Your task to perform on an android device: turn off airplane mode Image 0: 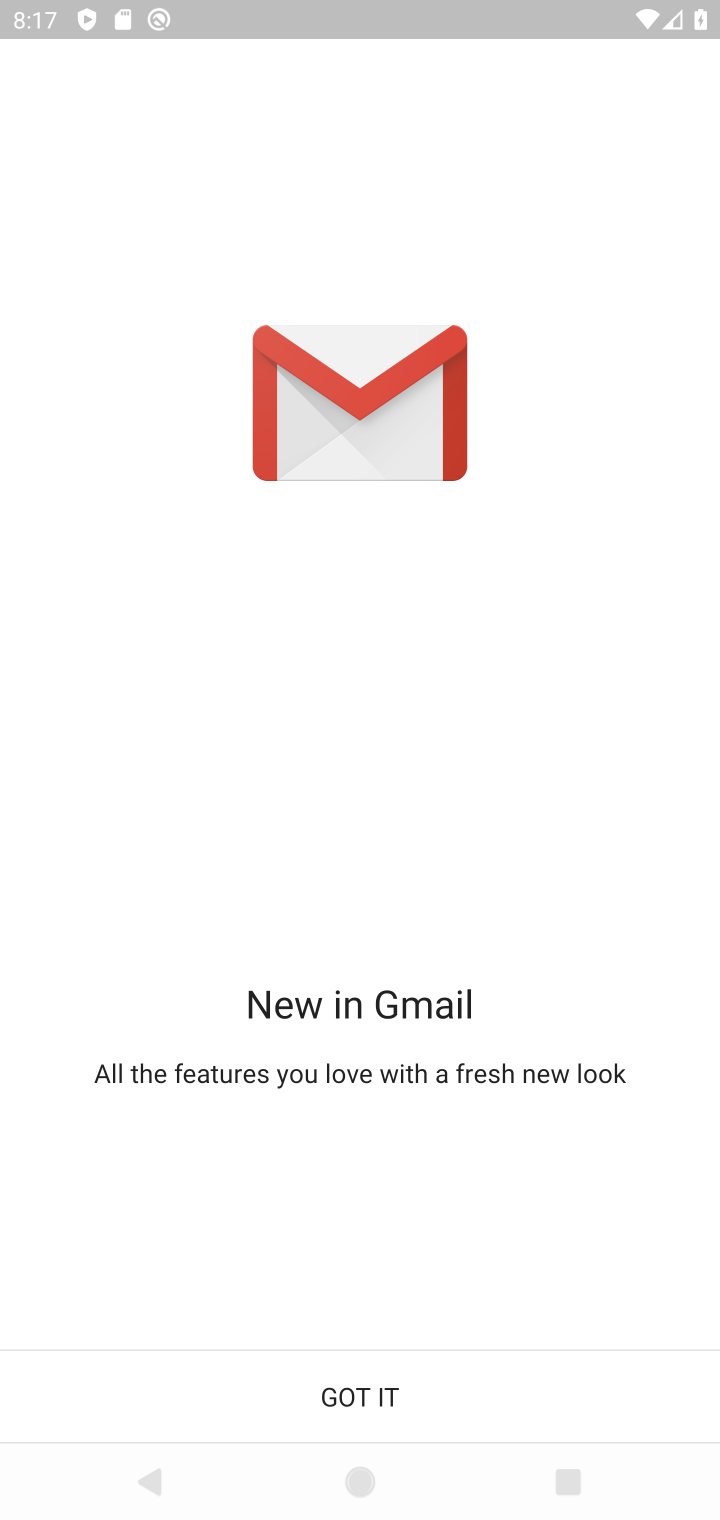
Step 0: press home button
Your task to perform on an android device: turn off airplane mode Image 1: 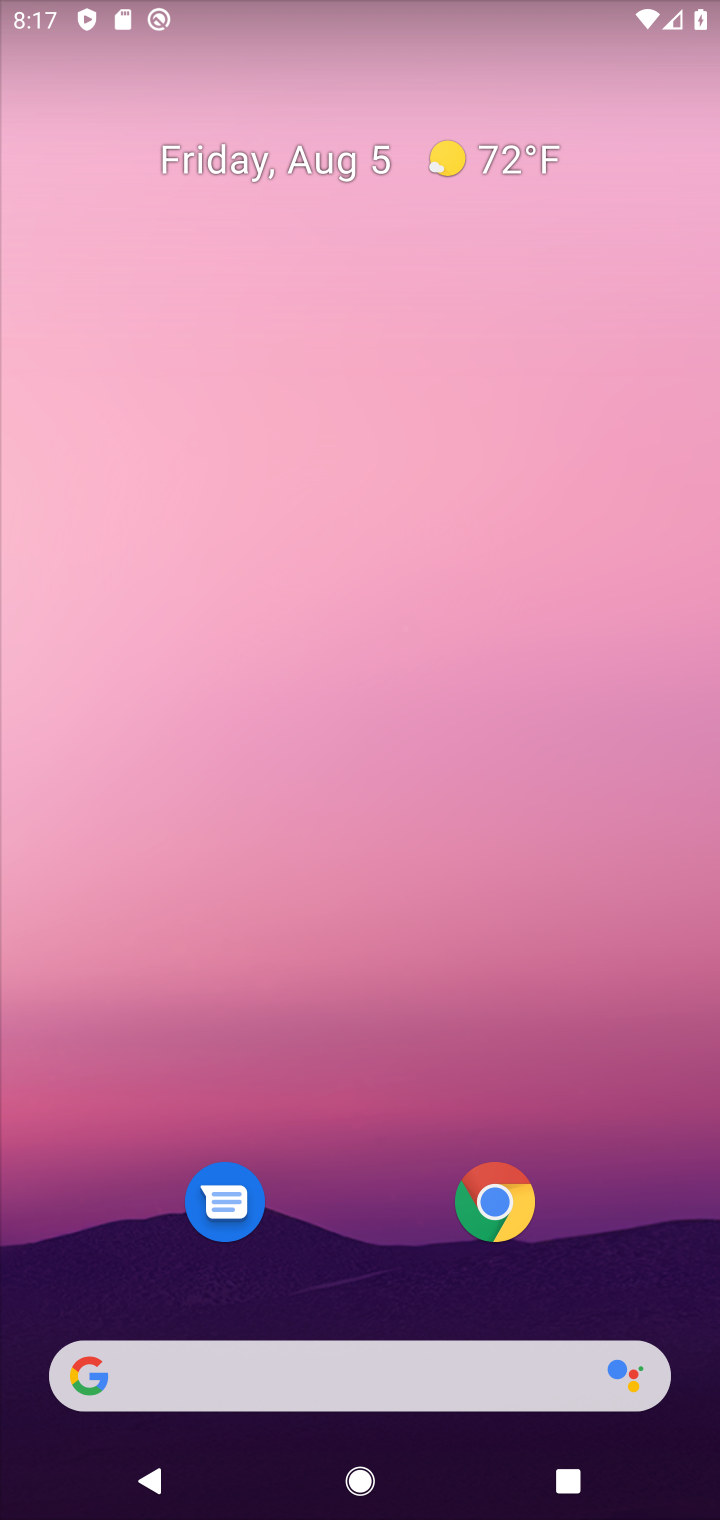
Step 1: click (427, 339)
Your task to perform on an android device: turn off airplane mode Image 2: 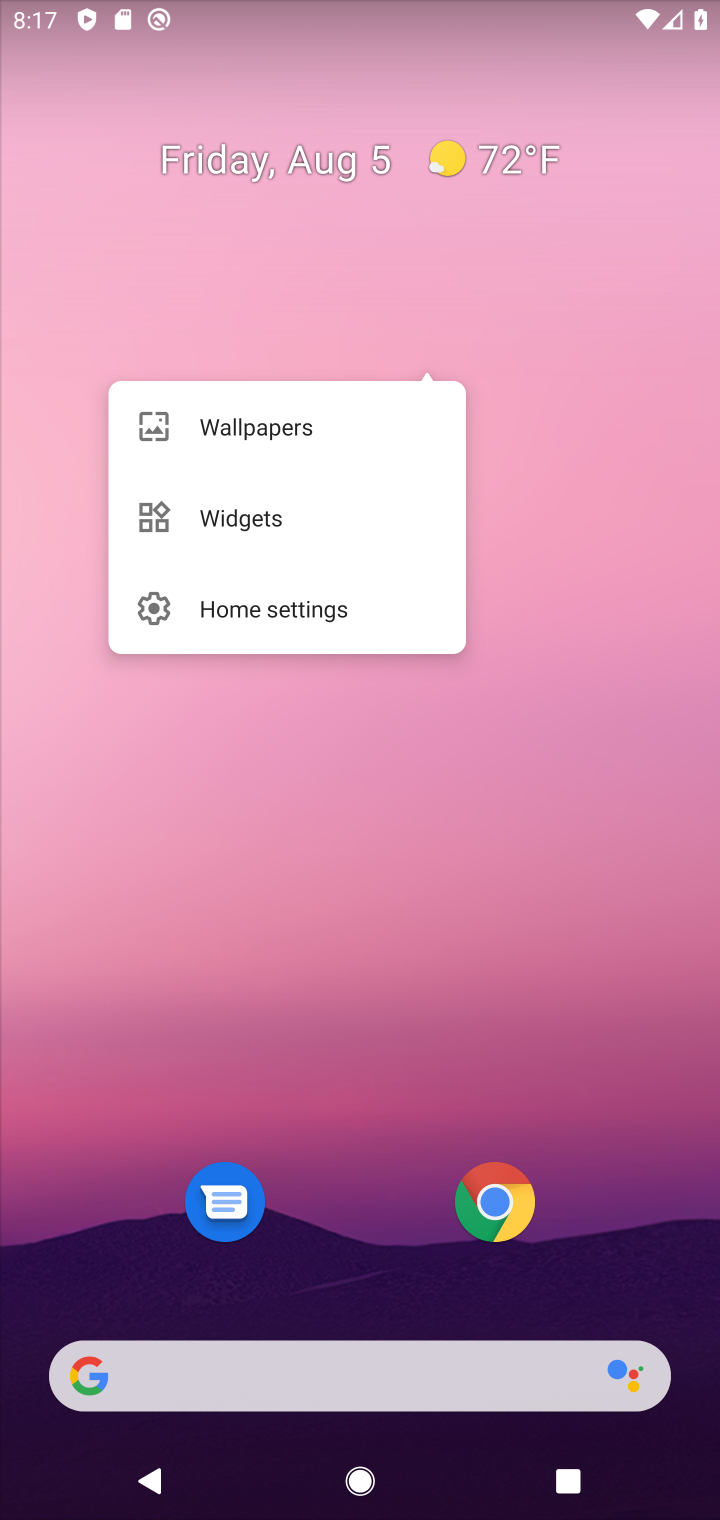
Step 2: click (427, 338)
Your task to perform on an android device: turn off airplane mode Image 3: 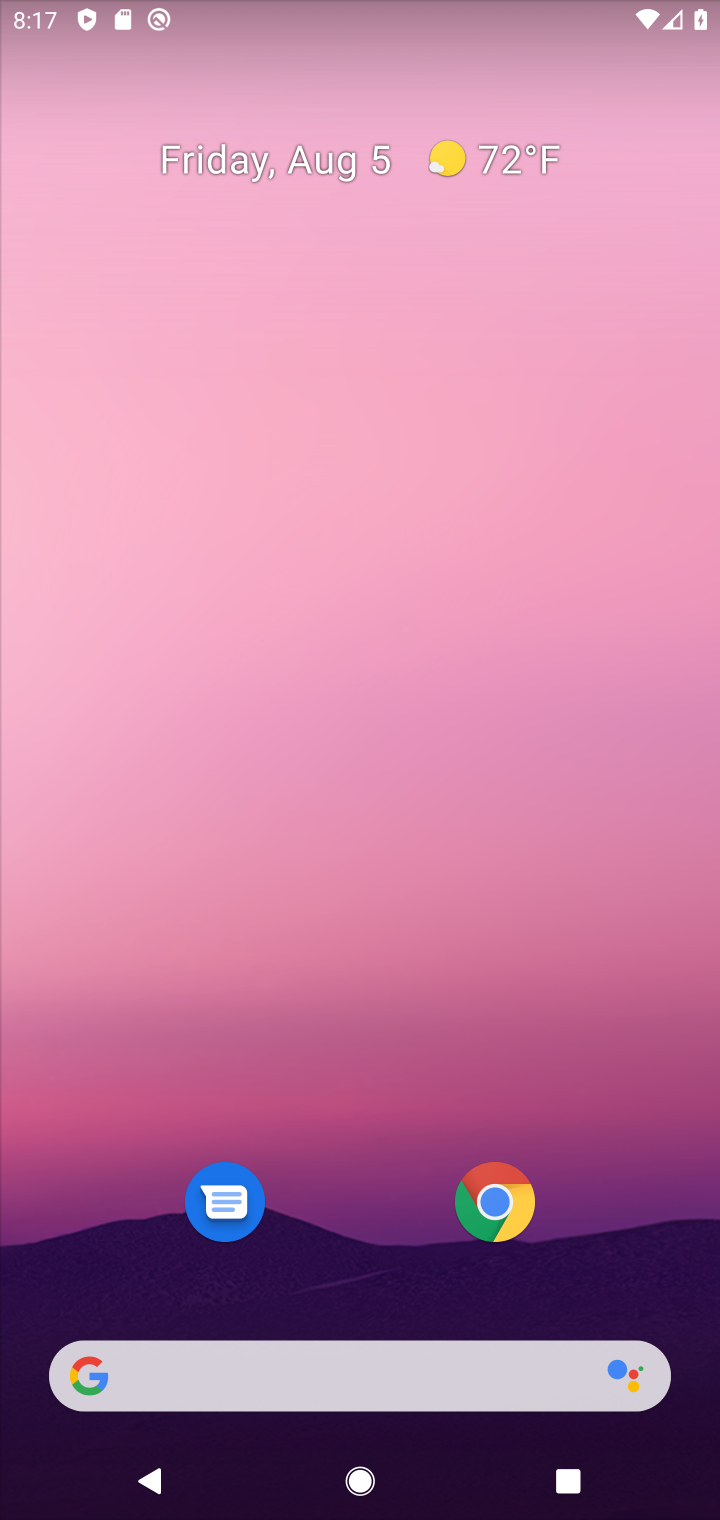
Step 3: drag from (365, 1269) to (690, 4)
Your task to perform on an android device: turn off airplane mode Image 4: 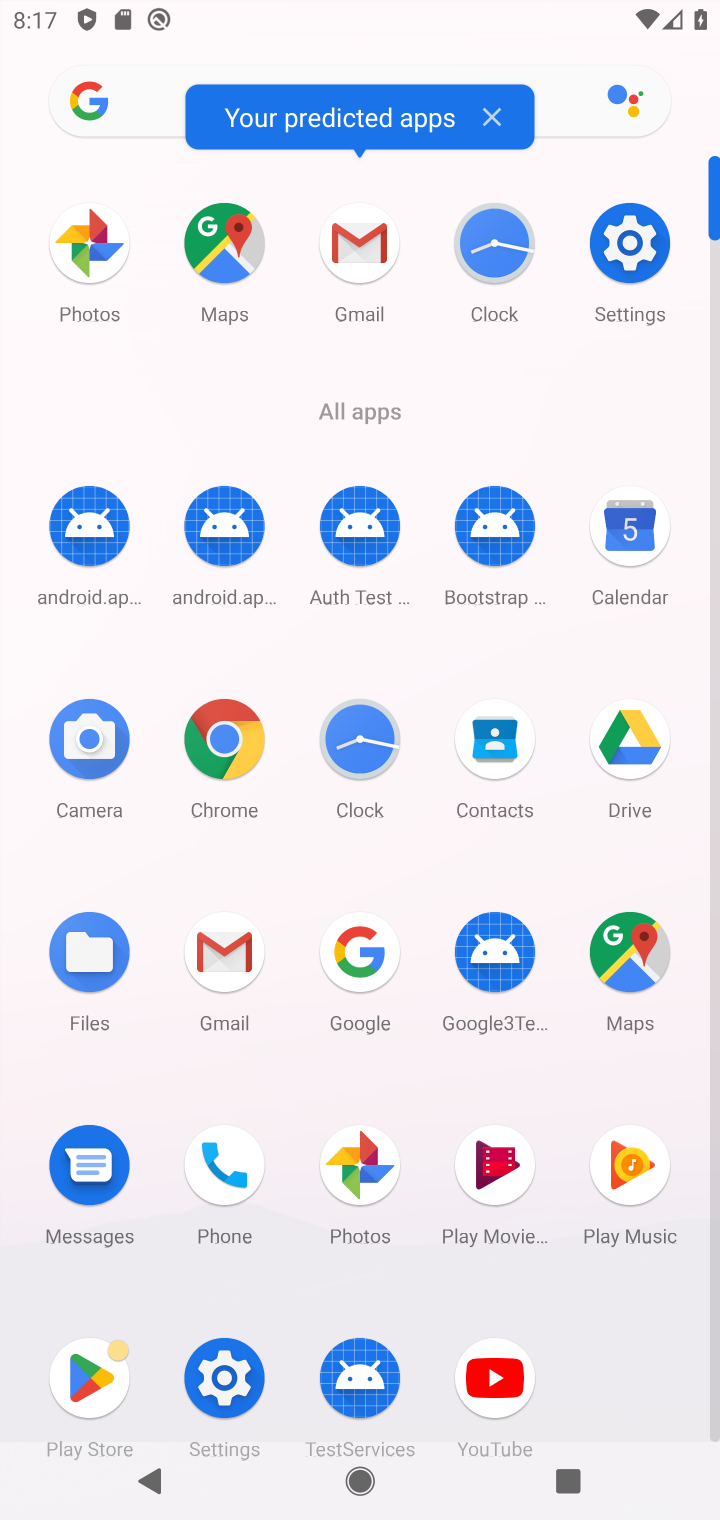
Step 4: click (623, 247)
Your task to perform on an android device: turn off airplane mode Image 5: 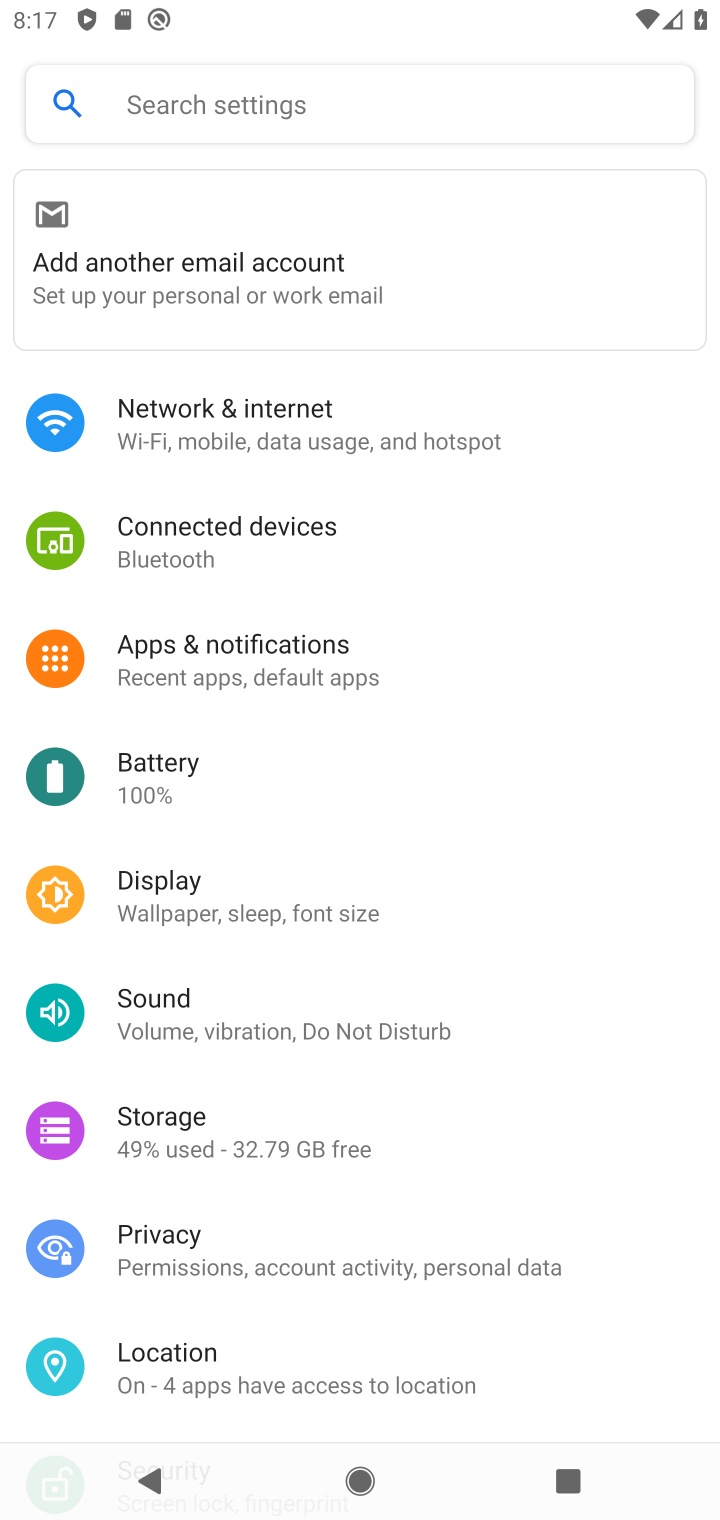
Step 5: click (307, 456)
Your task to perform on an android device: turn off airplane mode Image 6: 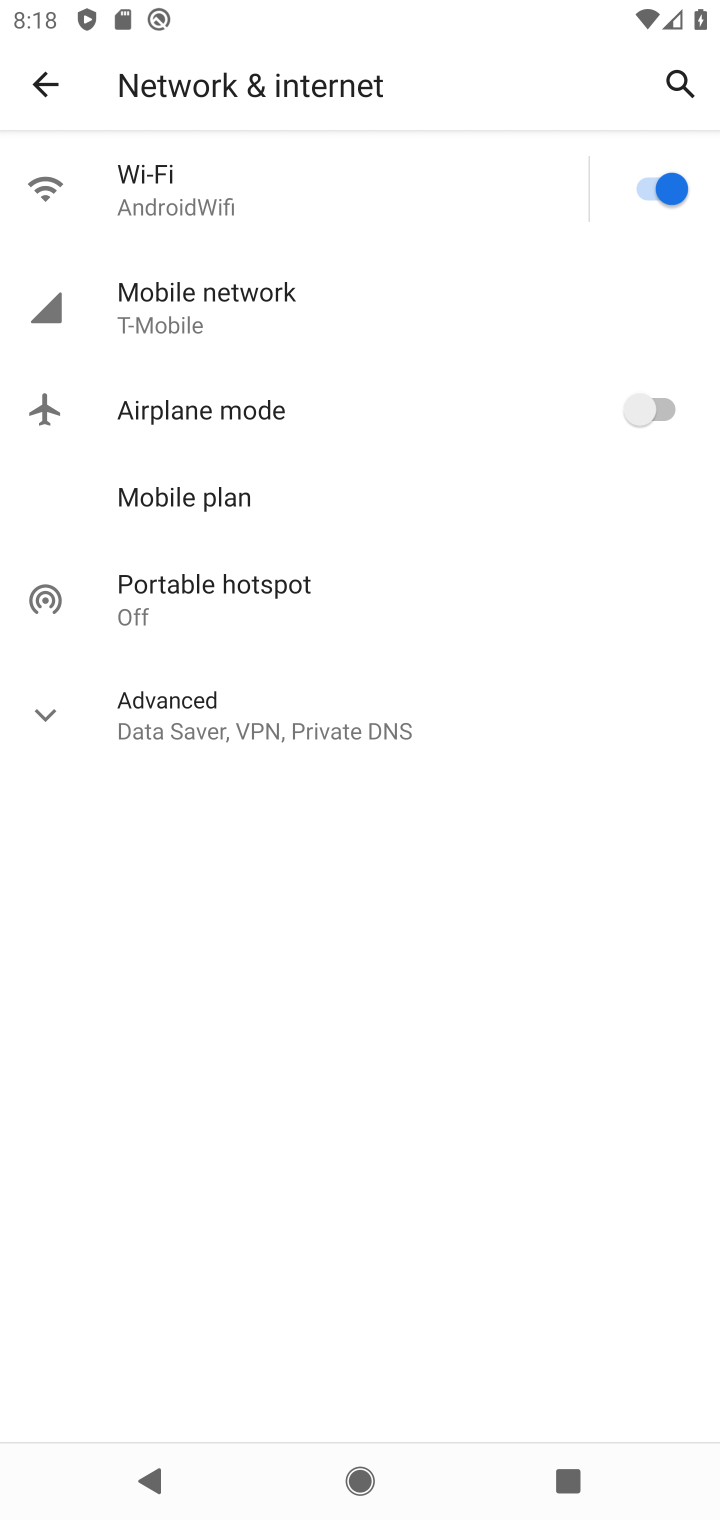
Step 6: task complete